Your task to perform on an android device: toggle pop-ups in chrome Image 0: 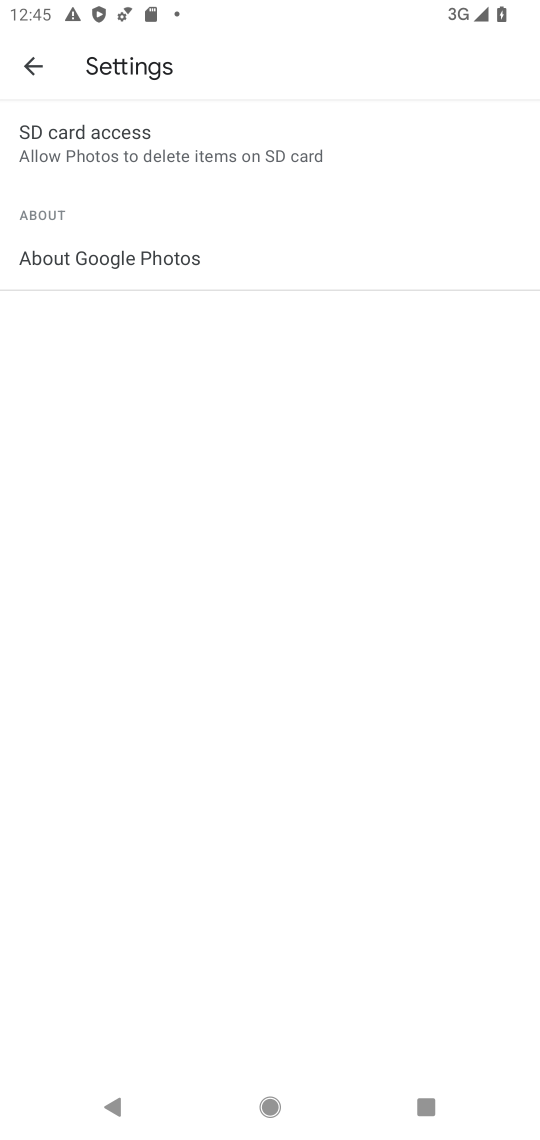
Step 0: drag from (275, 824) to (283, 245)
Your task to perform on an android device: toggle pop-ups in chrome Image 1: 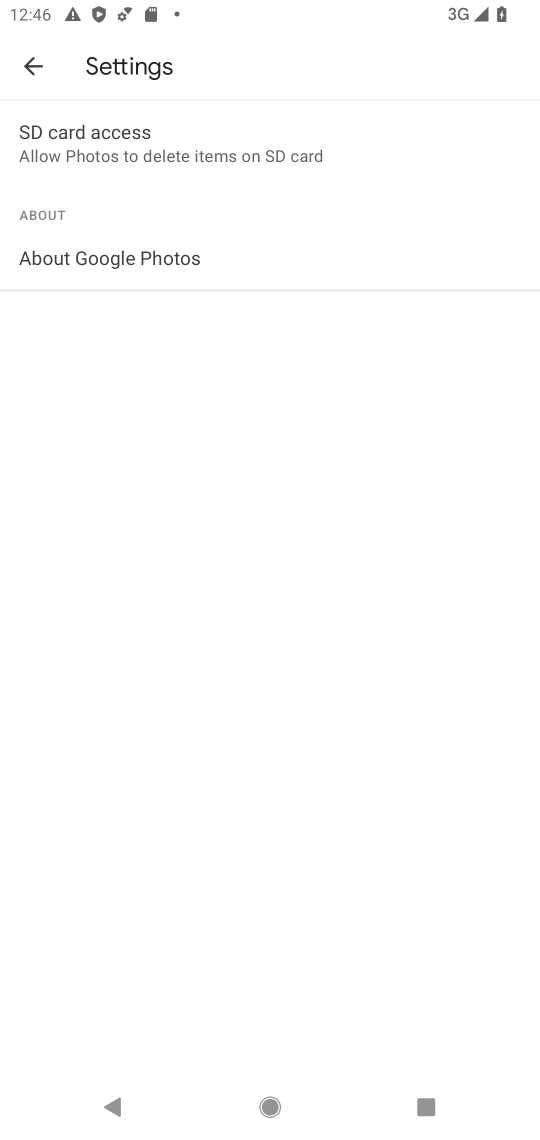
Step 1: drag from (205, 979) to (348, 419)
Your task to perform on an android device: toggle pop-ups in chrome Image 2: 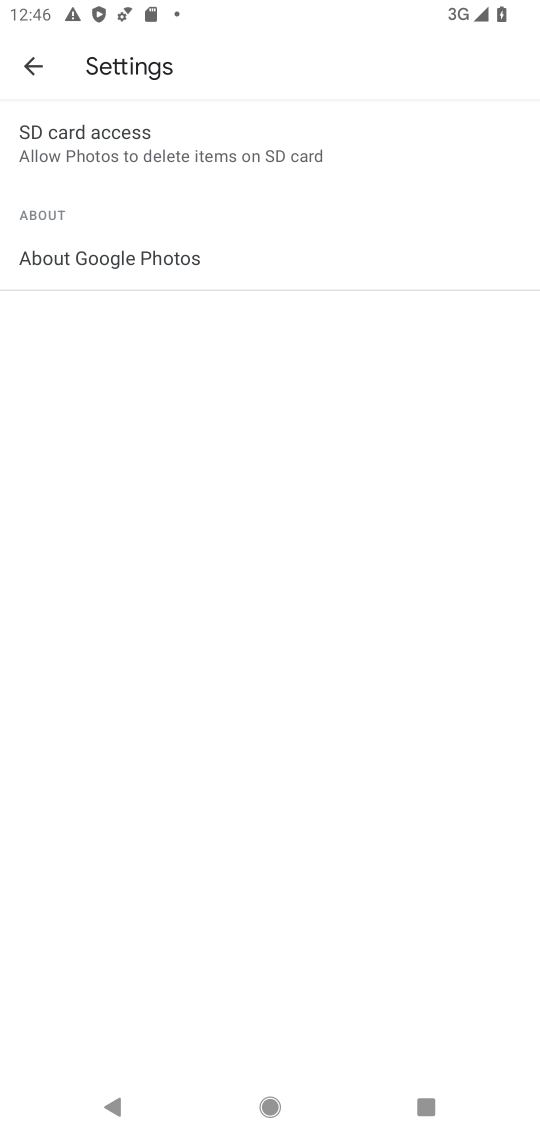
Step 2: drag from (237, 841) to (283, 463)
Your task to perform on an android device: toggle pop-ups in chrome Image 3: 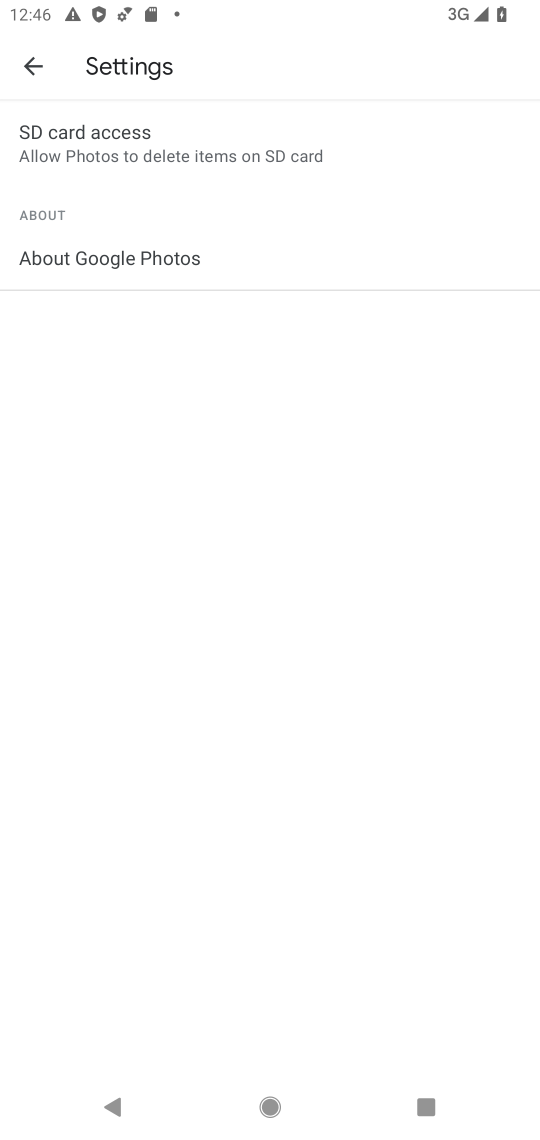
Step 3: drag from (335, 396) to (313, 686)
Your task to perform on an android device: toggle pop-ups in chrome Image 4: 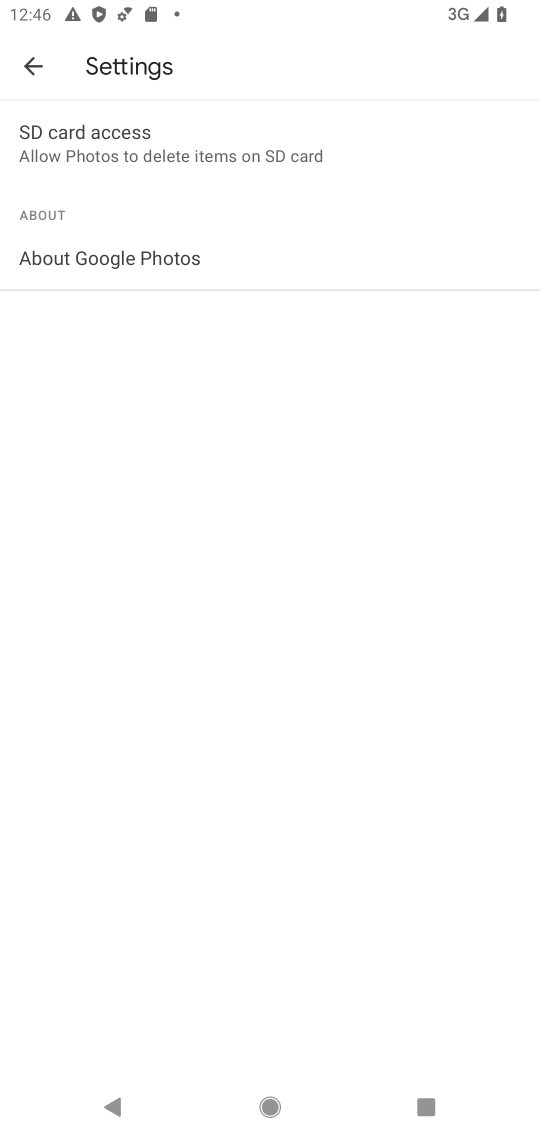
Step 4: press back button
Your task to perform on an android device: toggle pop-ups in chrome Image 5: 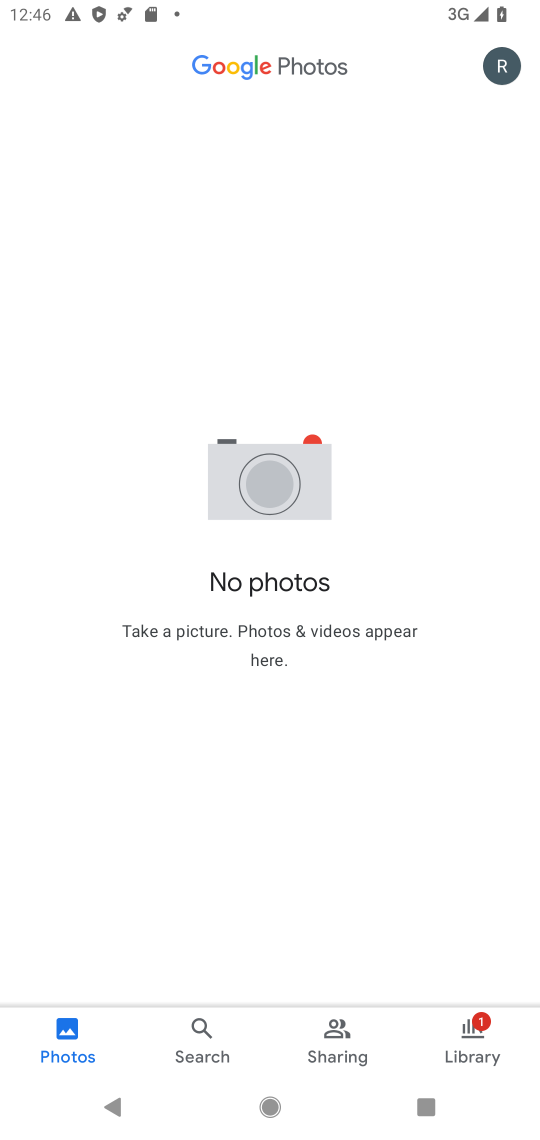
Step 5: press home button
Your task to perform on an android device: toggle pop-ups in chrome Image 6: 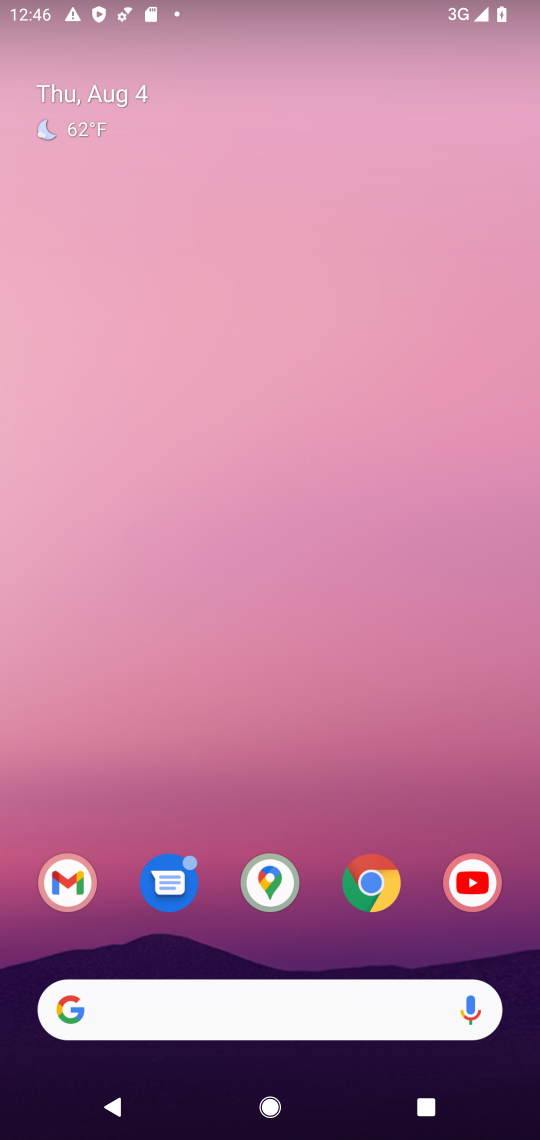
Step 6: drag from (329, 724) to (346, 341)
Your task to perform on an android device: toggle pop-ups in chrome Image 7: 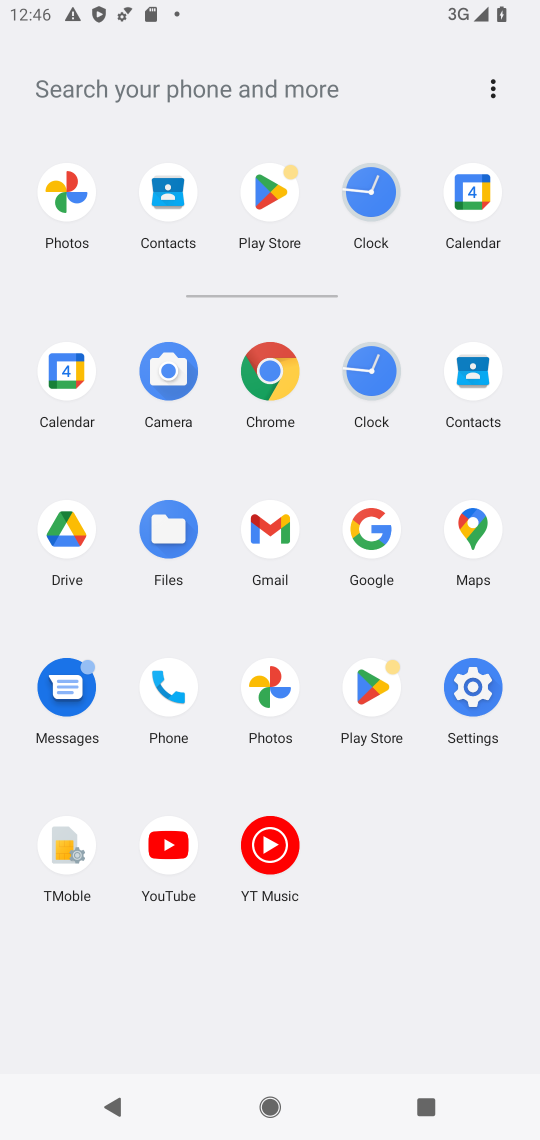
Step 7: click (266, 375)
Your task to perform on an android device: toggle pop-ups in chrome Image 8: 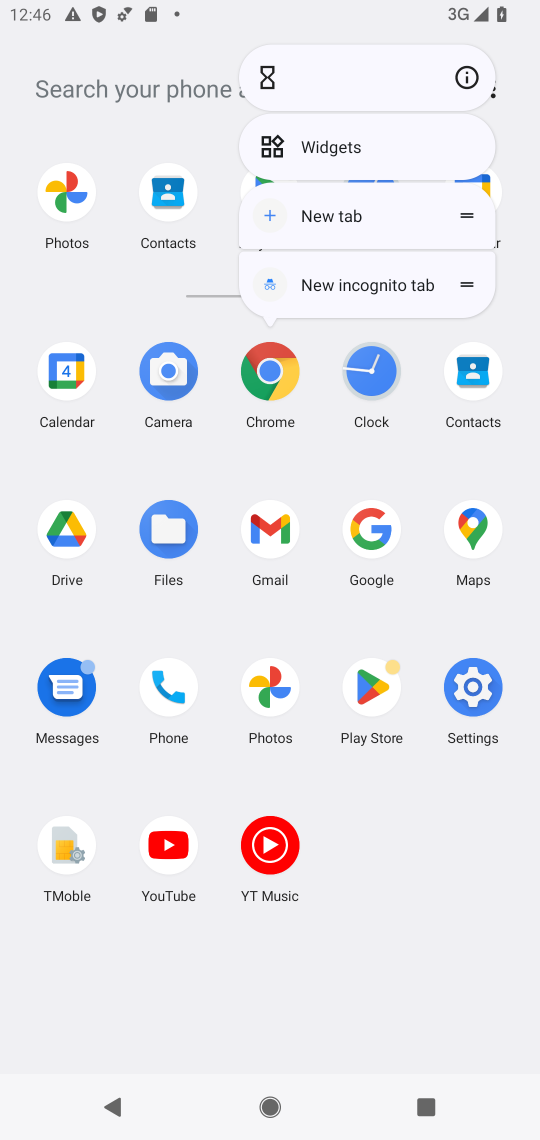
Step 8: click (475, 58)
Your task to perform on an android device: toggle pop-ups in chrome Image 9: 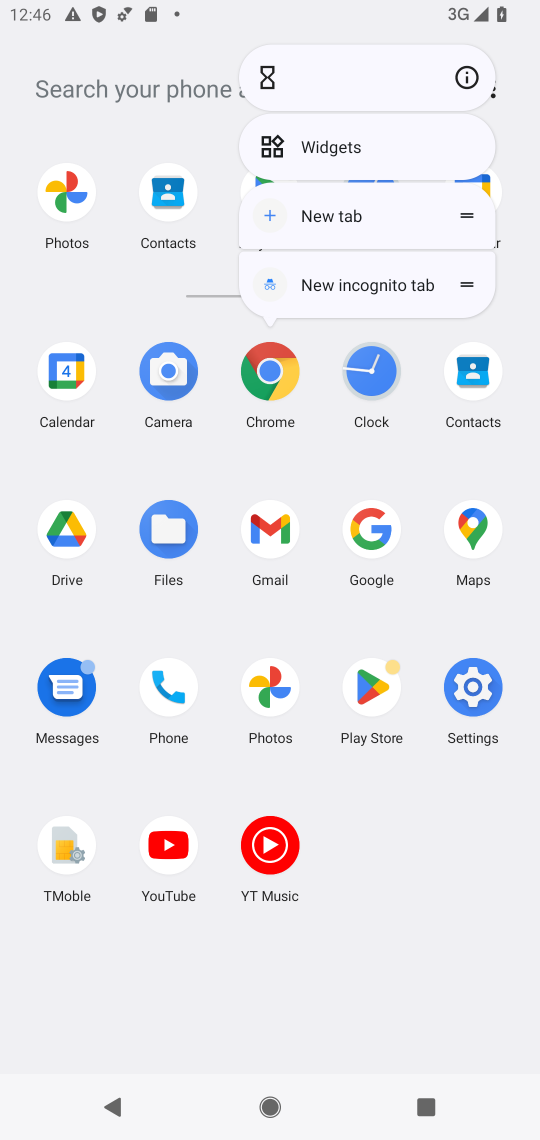
Step 9: click (477, 76)
Your task to perform on an android device: toggle pop-ups in chrome Image 10: 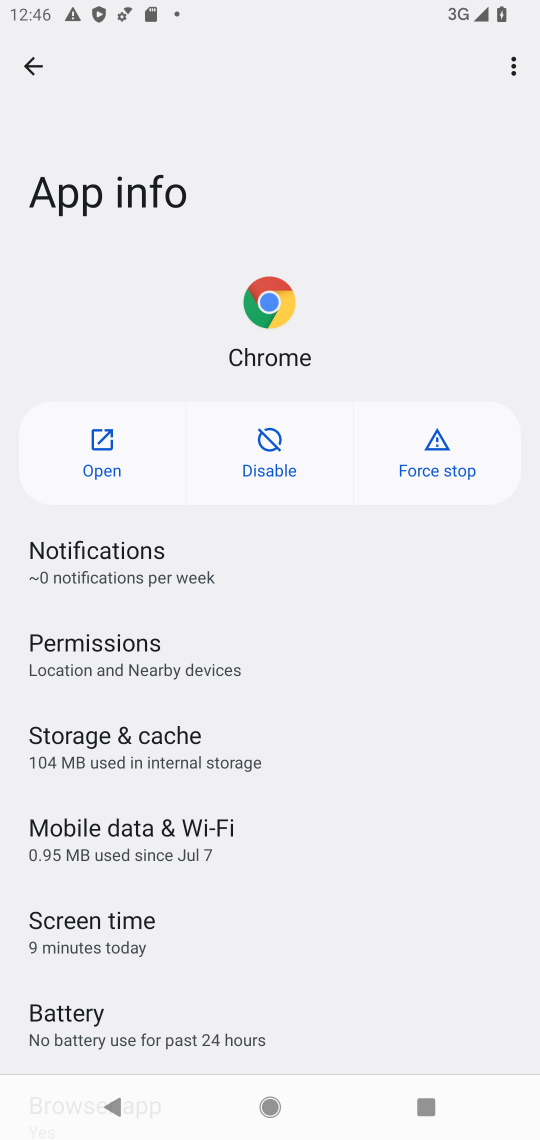
Step 10: click (109, 446)
Your task to perform on an android device: toggle pop-ups in chrome Image 11: 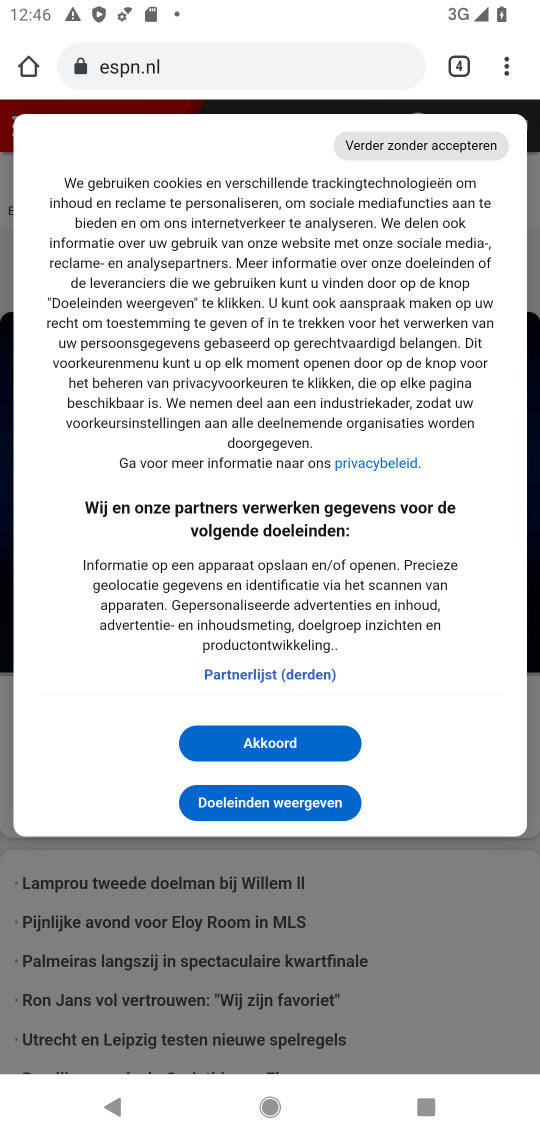
Step 11: drag from (508, 67) to (352, 854)
Your task to perform on an android device: toggle pop-ups in chrome Image 12: 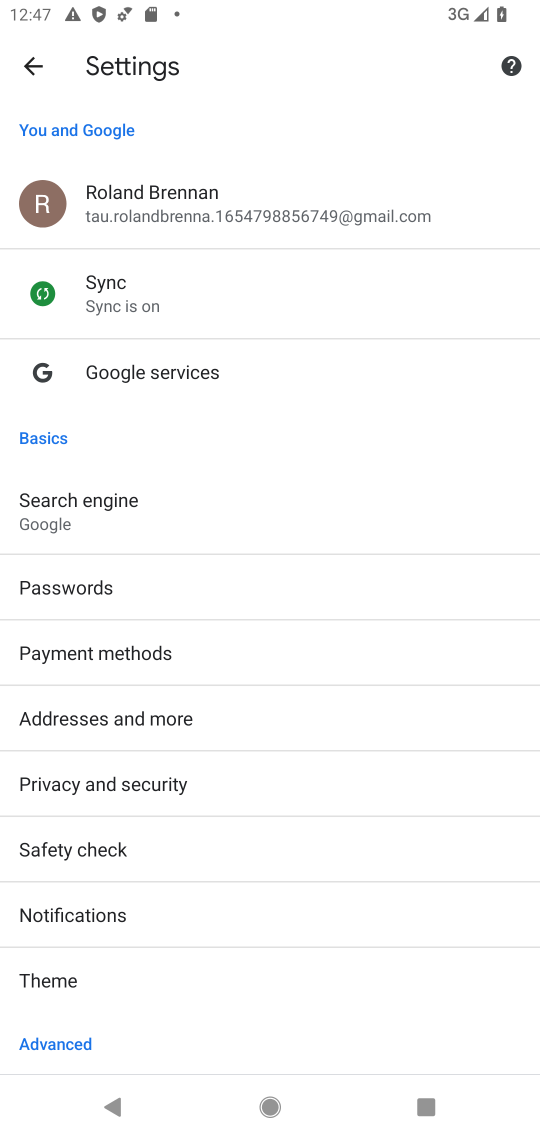
Step 12: drag from (147, 927) to (270, 527)
Your task to perform on an android device: toggle pop-ups in chrome Image 13: 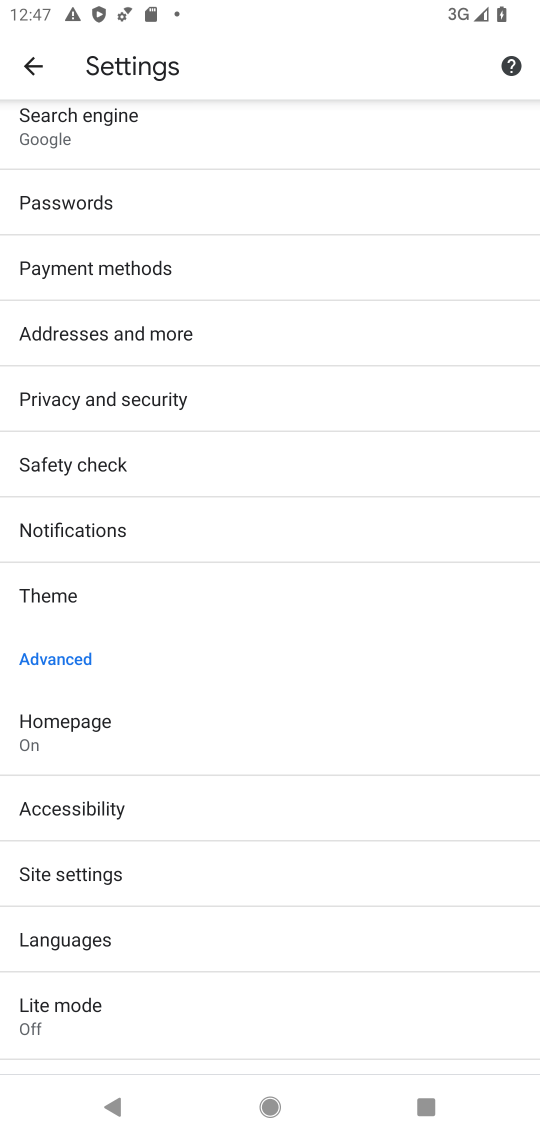
Step 13: click (112, 861)
Your task to perform on an android device: toggle pop-ups in chrome Image 14: 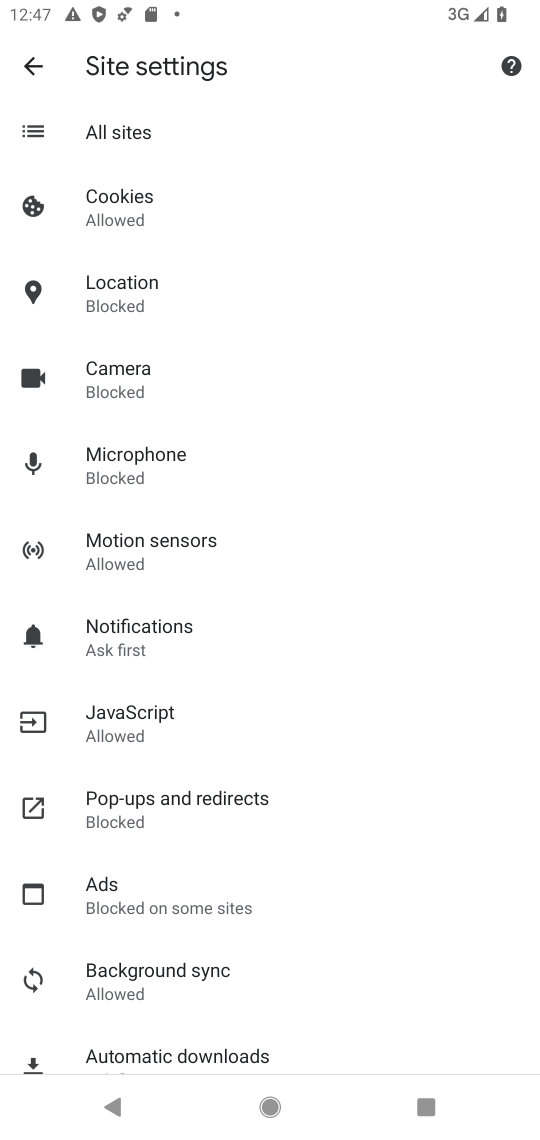
Step 14: click (114, 809)
Your task to perform on an android device: toggle pop-ups in chrome Image 15: 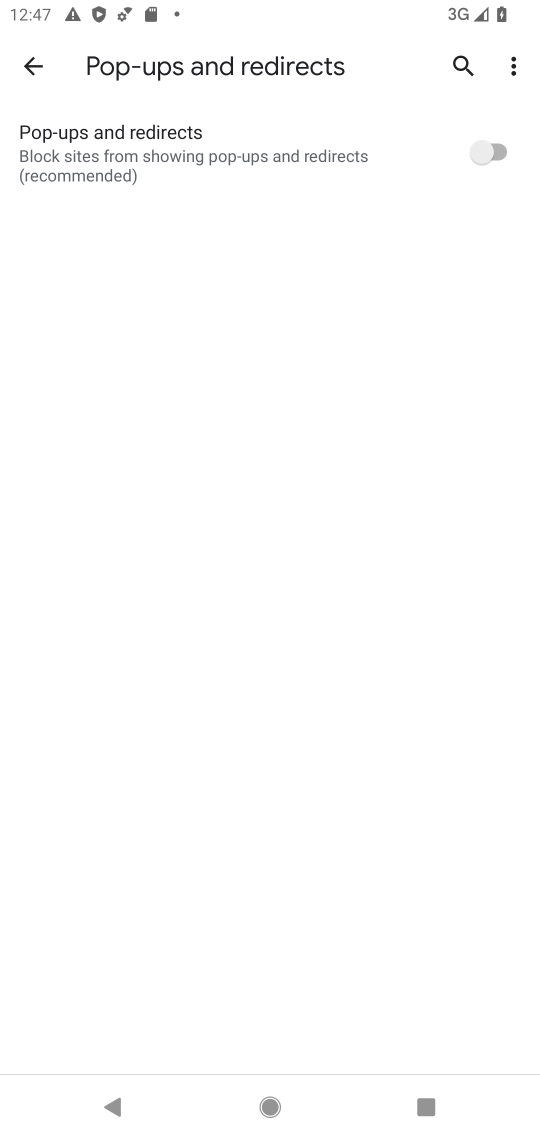
Step 15: click (422, 174)
Your task to perform on an android device: toggle pop-ups in chrome Image 16: 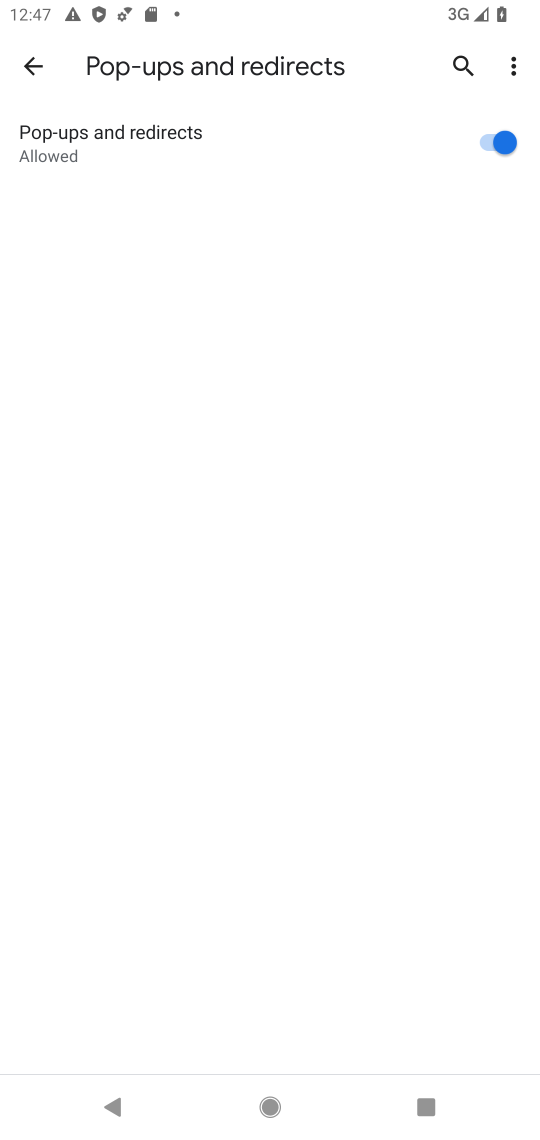
Step 16: task complete